Your task to perform on an android device: What's the weather going to be this weekend? Image 0: 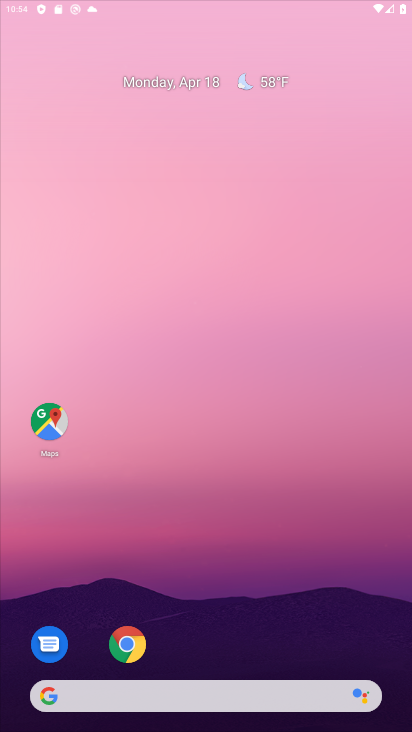
Step 0: drag from (226, 560) to (262, 176)
Your task to perform on an android device: What's the weather going to be this weekend? Image 1: 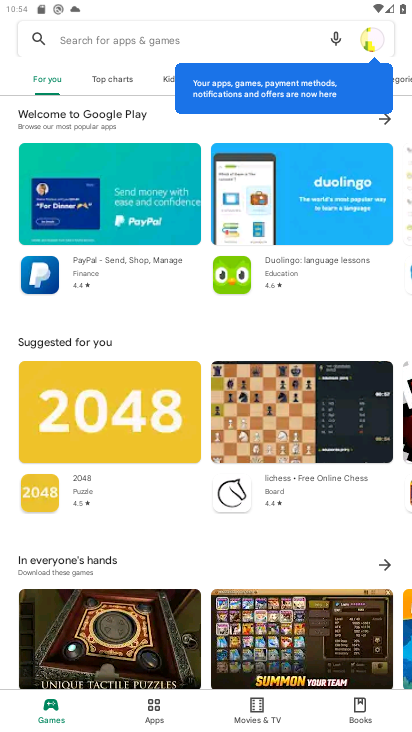
Step 1: press home button
Your task to perform on an android device: What's the weather going to be this weekend? Image 2: 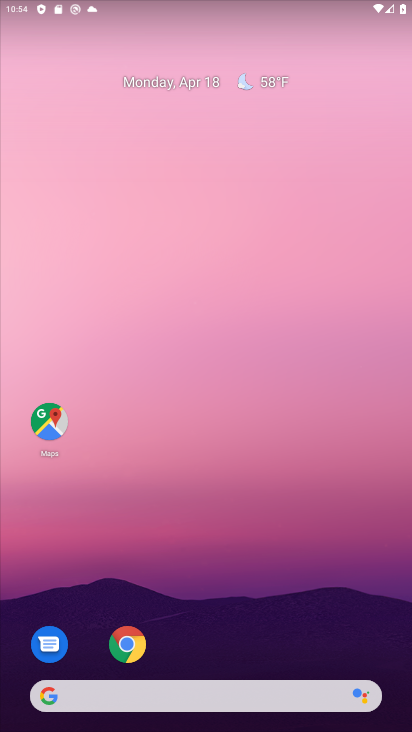
Step 2: drag from (210, 659) to (238, 230)
Your task to perform on an android device: What's the weather going to be this weekend? Image 3: 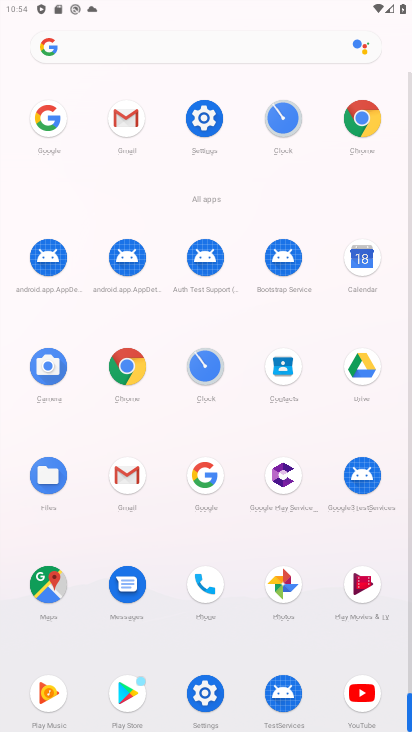
Step 3: click (128, 369)
Your task to perform on an android device: What's the weather going to be this weekend? Image 4: 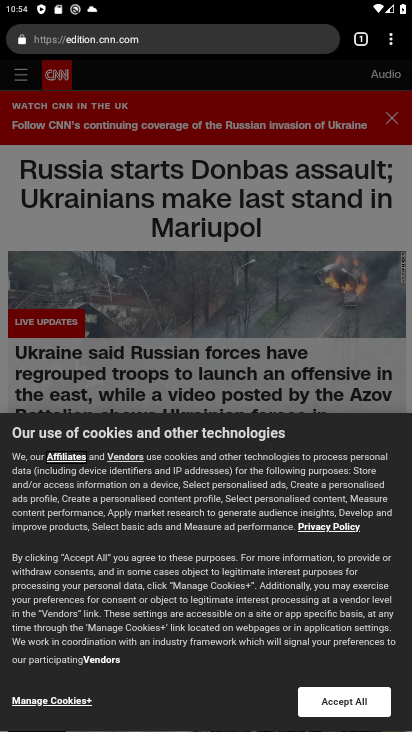
Step 4: click (101, 38)
Your task to perform on an android device: What's the weather going to be this weekend? Image 5: 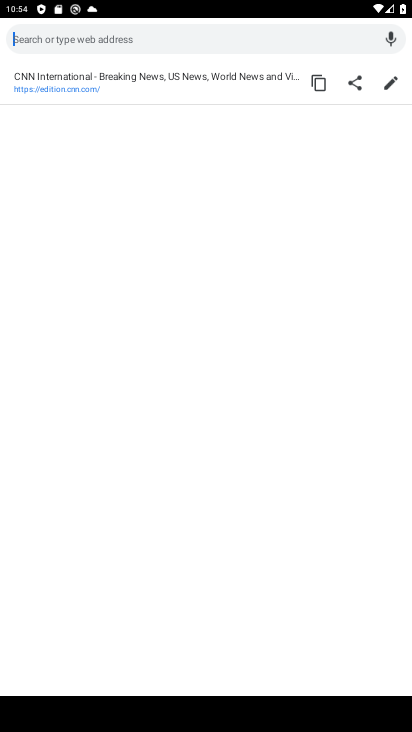
Step 5: type "what's the weather going to be this weekend?"
Your task to perform on an android device: What's the weather going to be this weekend? Image 6: 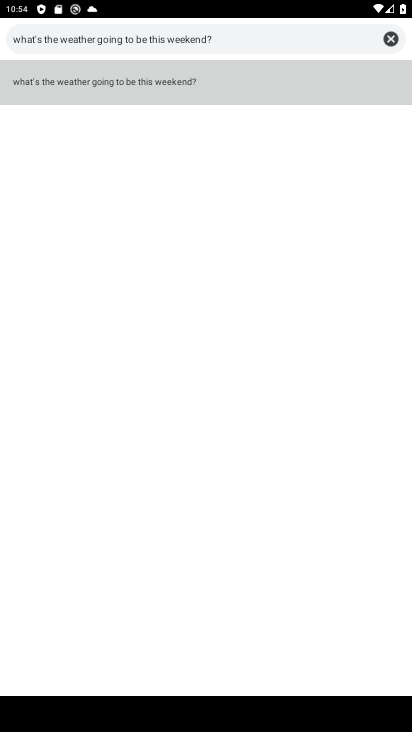
Step 6: click (189, 89)
Your task to perform on an android device: What's the weather going to be this weekend? Image 7: 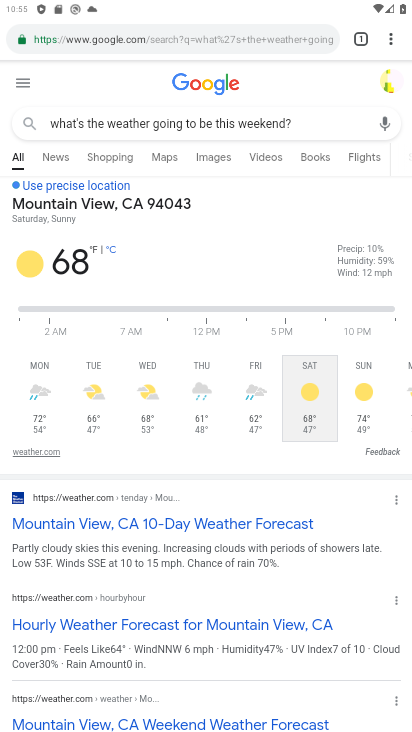
Step 7: task complete